Your task to perform on an android device: find snoozed emails in the gmail app Image 0: 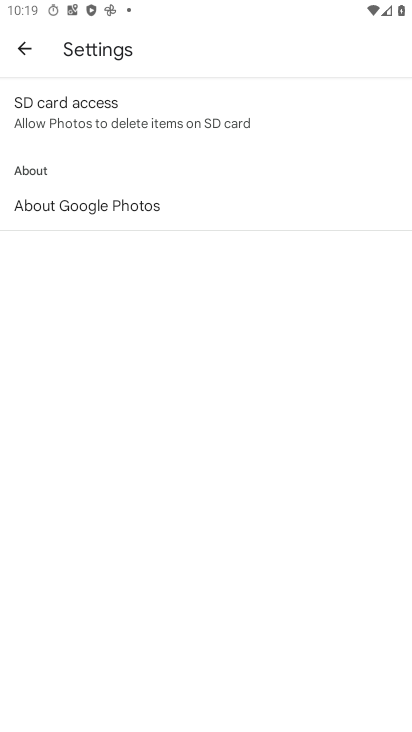
Step 0: press home button
Your task to perform on an android device: find snoozed emails in the gmail app Image 1: 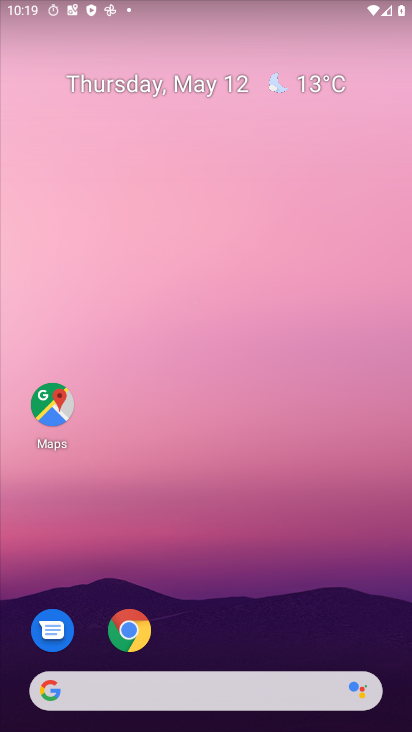
Step 1: drag from (177, 680) to (174, 53)
Your task to perform on an android device: find snoozed emails in the gmail app Image 2: 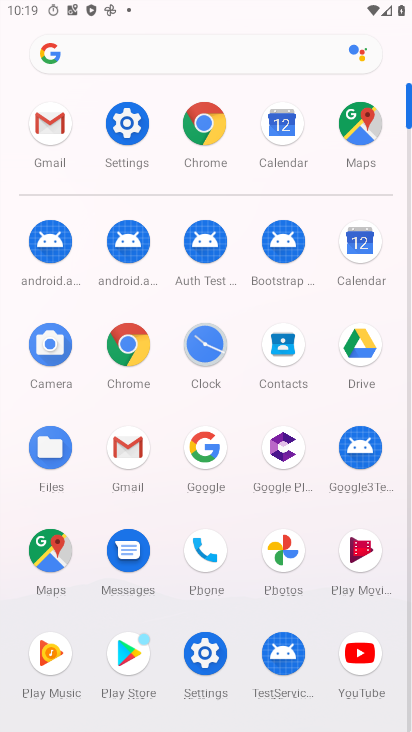
Step 2: click (137, 448)
Your task to perform on an android device: find snoozed emails in the gmail app Image 3: 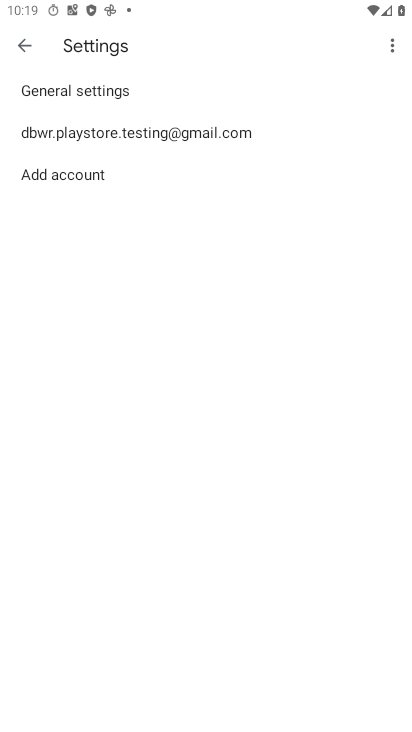
Step 3: click (16, 41)
Your task to perform on an android device: find snoozed emails in the gmail app Image 4: 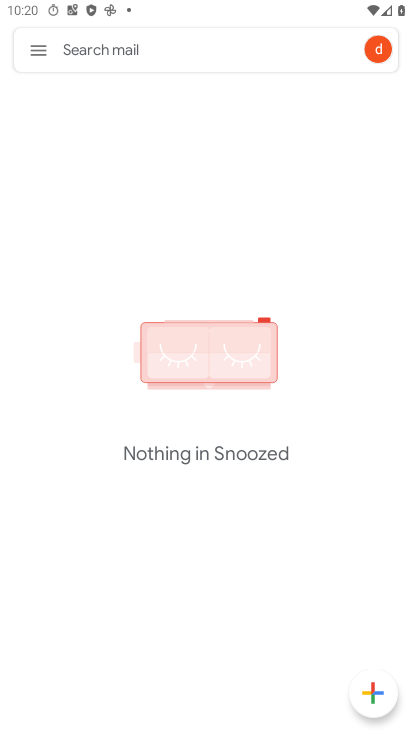
Step 4: task complete